Your task to perform on an android device: Turn off the flashlight Image 0: 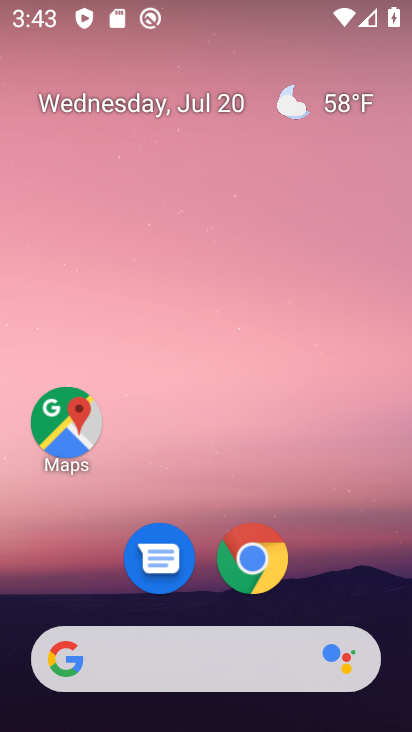
Step 0: drag from (98, 598) to (209, 179)
Your task to perform on an android device: Turn off the flashlight Image 1: 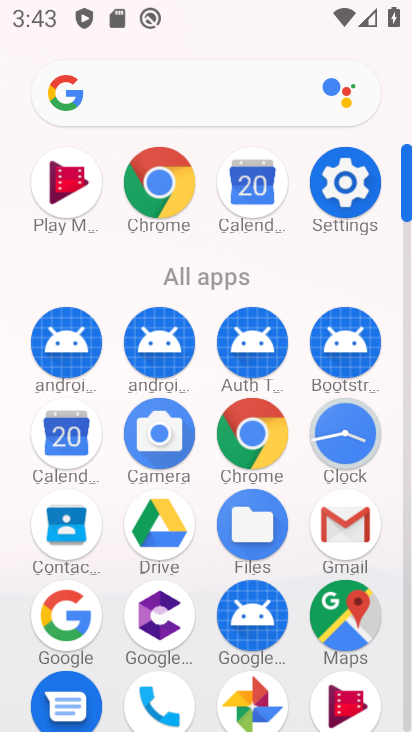
Step 1: click (341, 190)
Your task to perform on an android device: Turn off the flashlight Image 2: 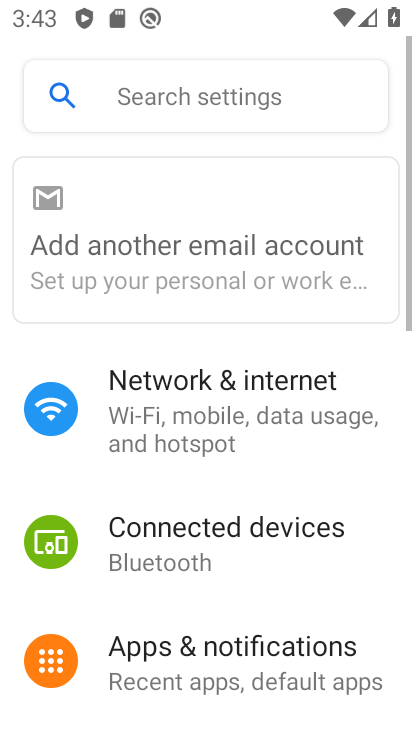
Step 2: click (167, 91)
Your task to perform on an android device: Turn off the flashlight Image 3: 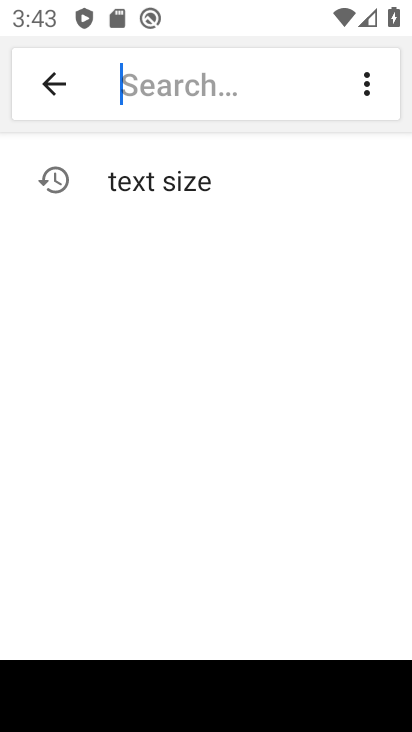
Step 3: type "flashlight"
Your task to perform on an android device: Turn off the flashlight Image 4: 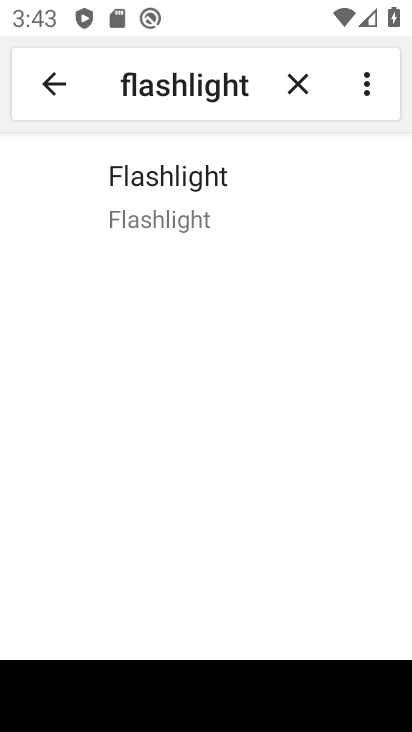
Step 4: click (136, 187)
Your task to perform on an android device: Turn off the flashlight Image 5: 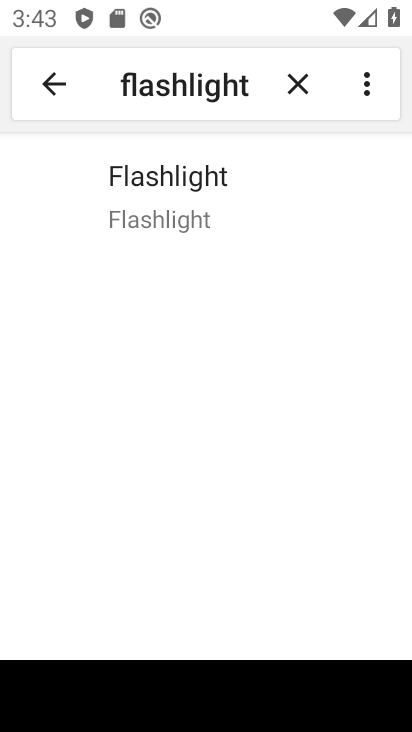
Step 5: task complete